Your task to perform on an android device: open app "Instagram" (install if not already installed) Image 0: 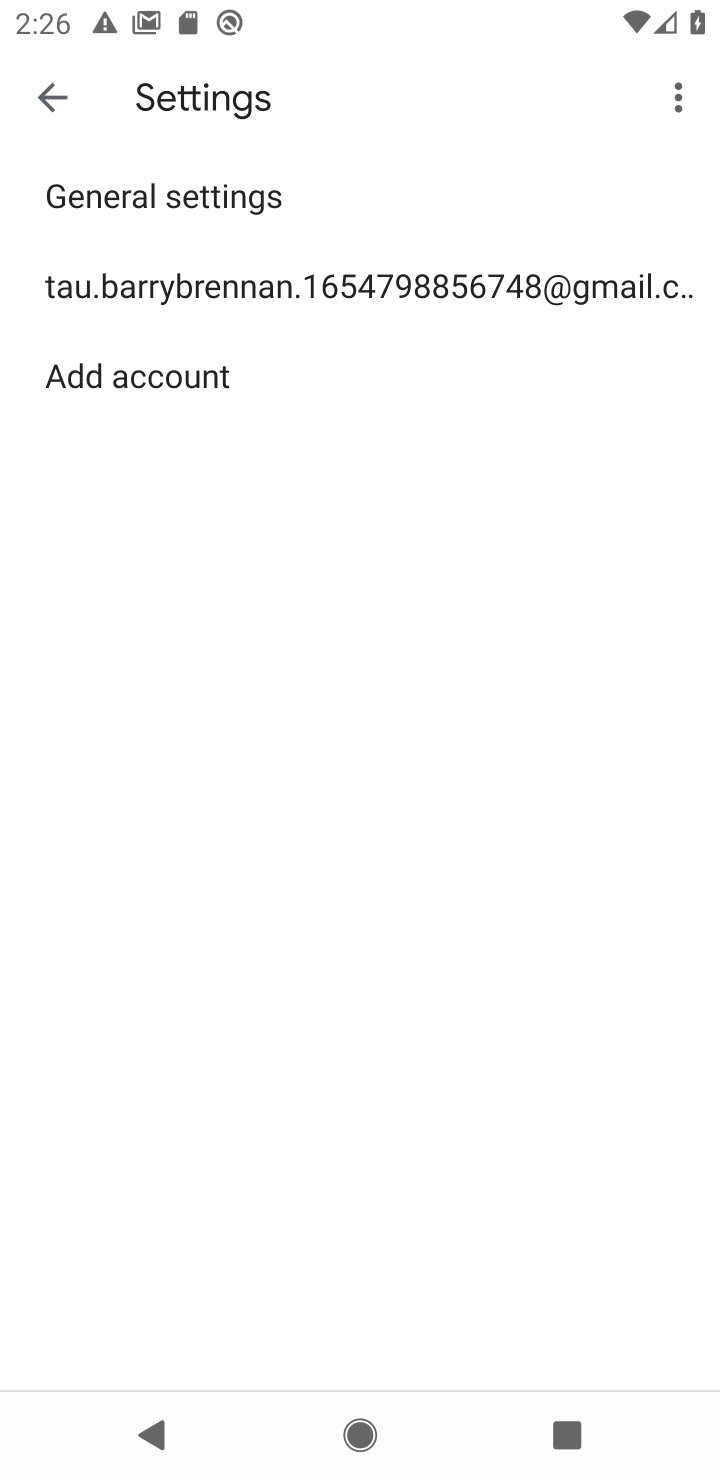
Step 0: press home button
Your task to perform on an android device: open app "Instagram" (install if not already installed) Image 1: 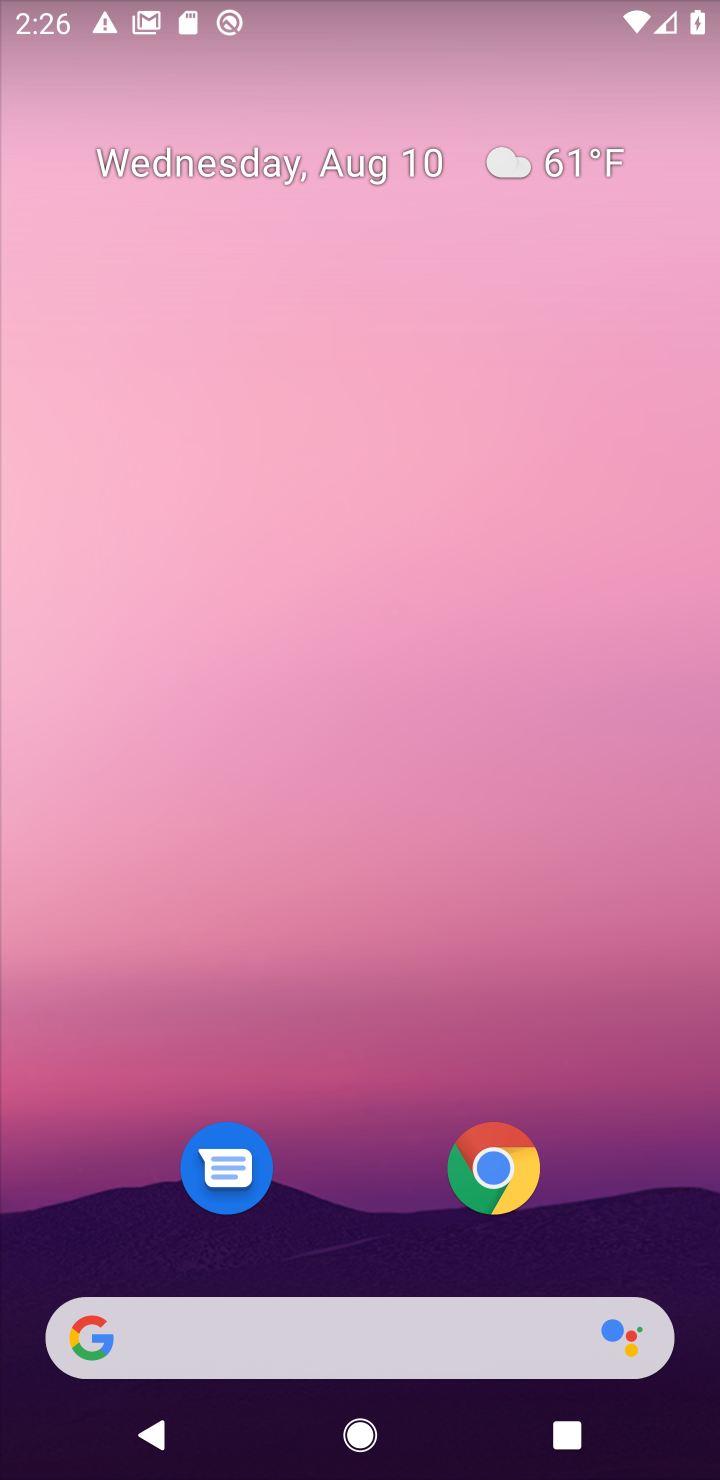
Step 1: drag from (251, 1322) to (336, 151)
Your task to perform on an android device: open app "Instagram" (install if not already installed) Image 2: 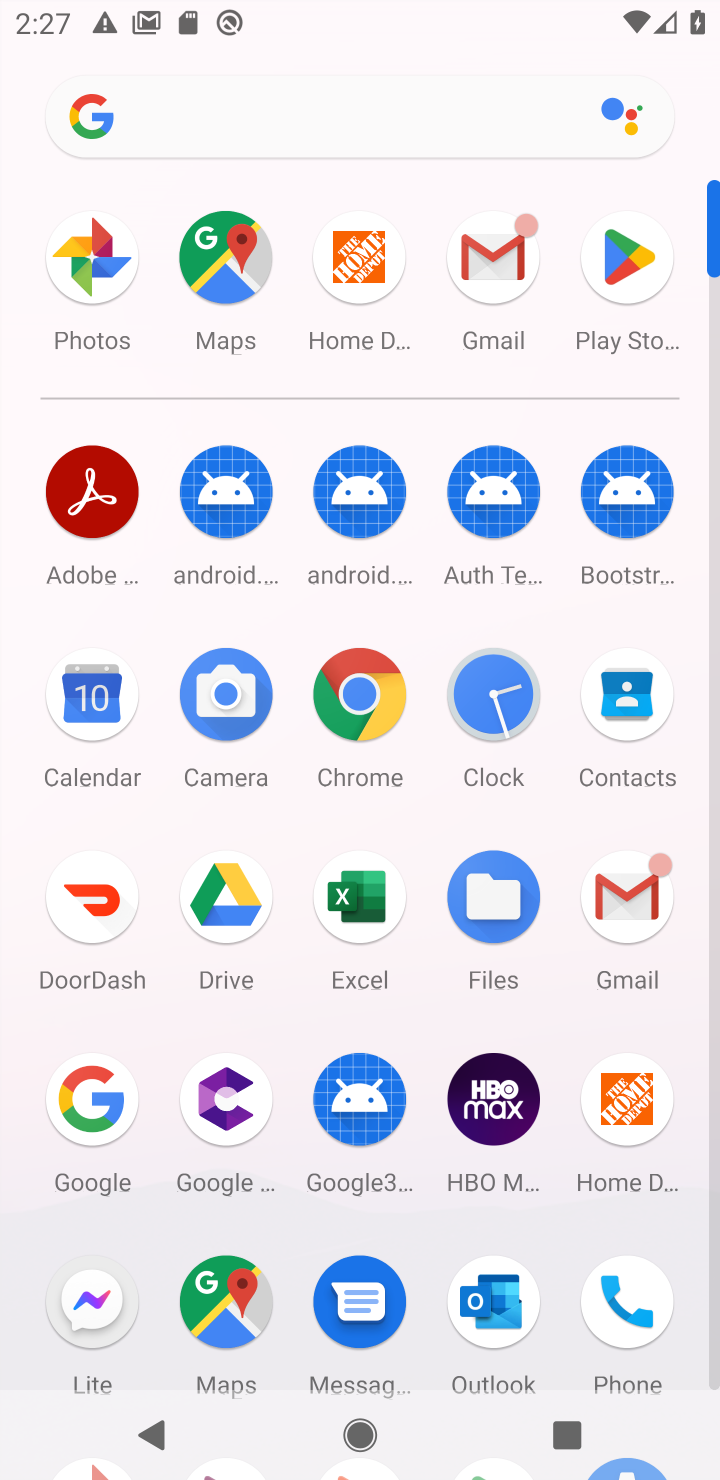
Step 2: click (620, 264)
Your task to perform on an android device: open app "Instagram" (install if not already installed) Image 3: 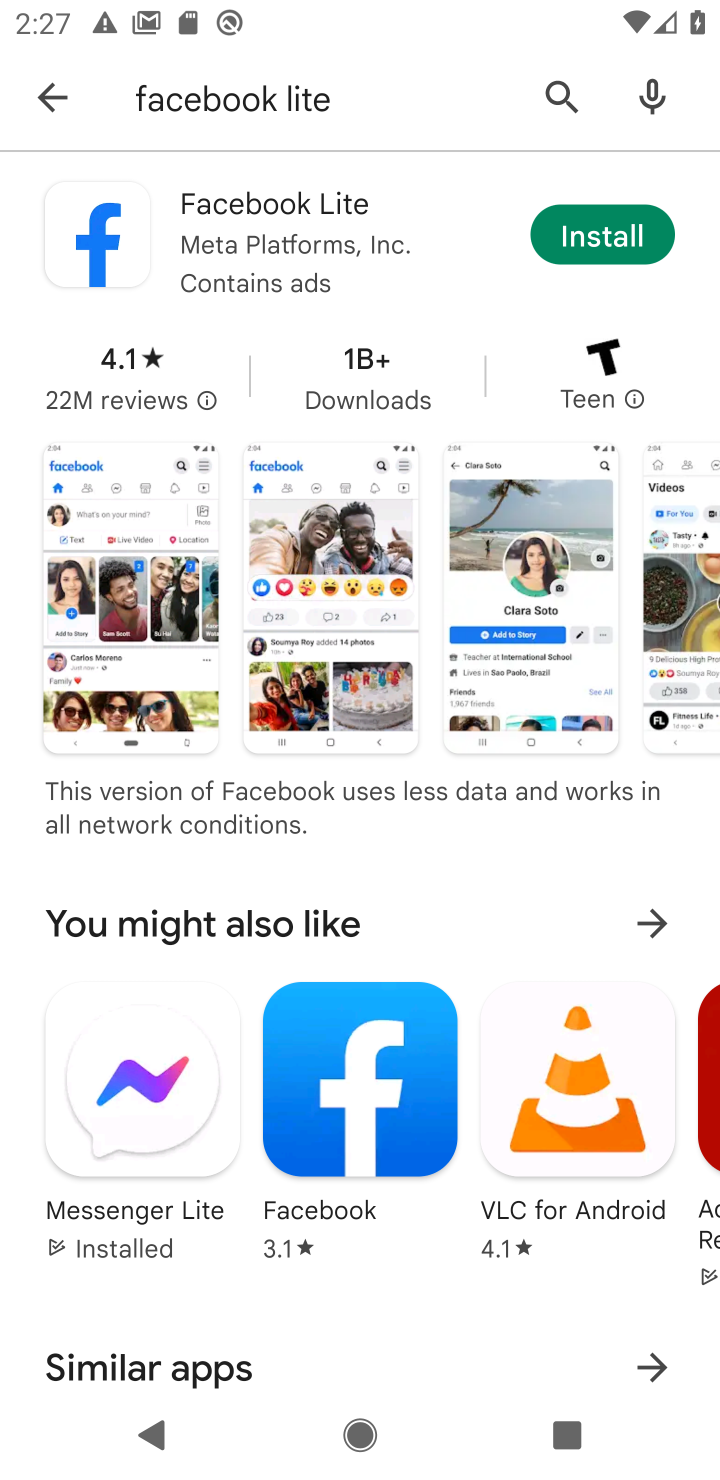
Step 3: click (558, 98)
Your task to perform on an android device: open app "Instagram" (install if not already installed) Image 4: 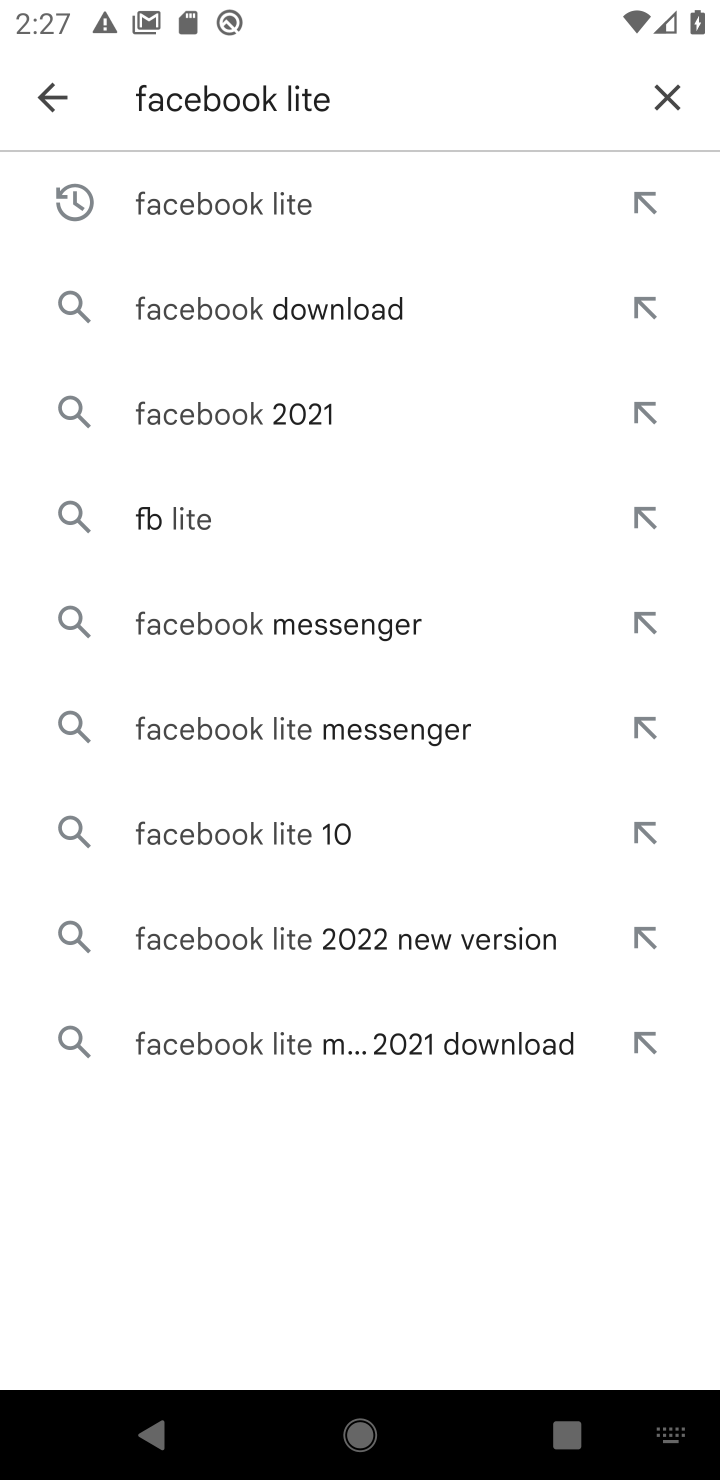
Step 4: press back button
Your task to perform on an android device: open app "Instagram" (install if not already installed) Image 5: 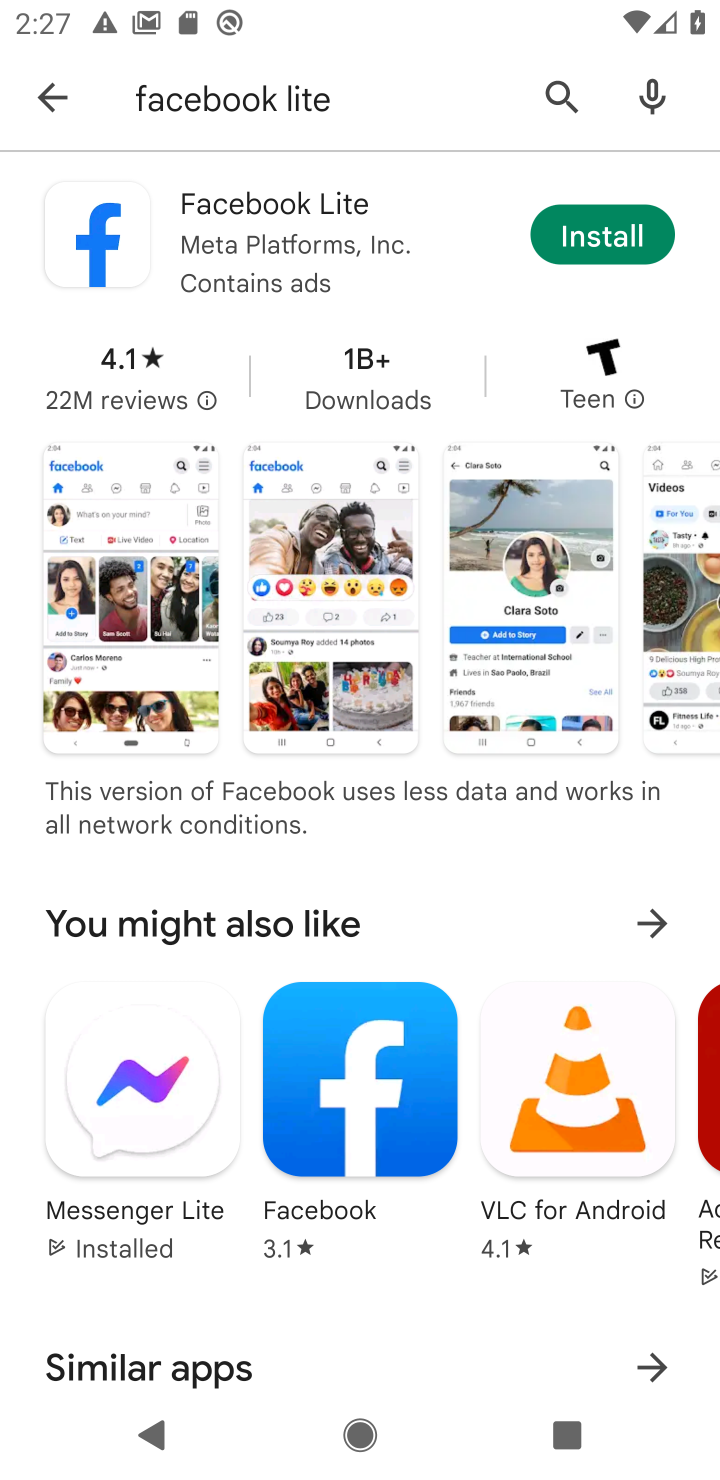
Step 5: press back button
Your task to perform on an android device: open app "Instagram" (install if not already installed) Image 6: 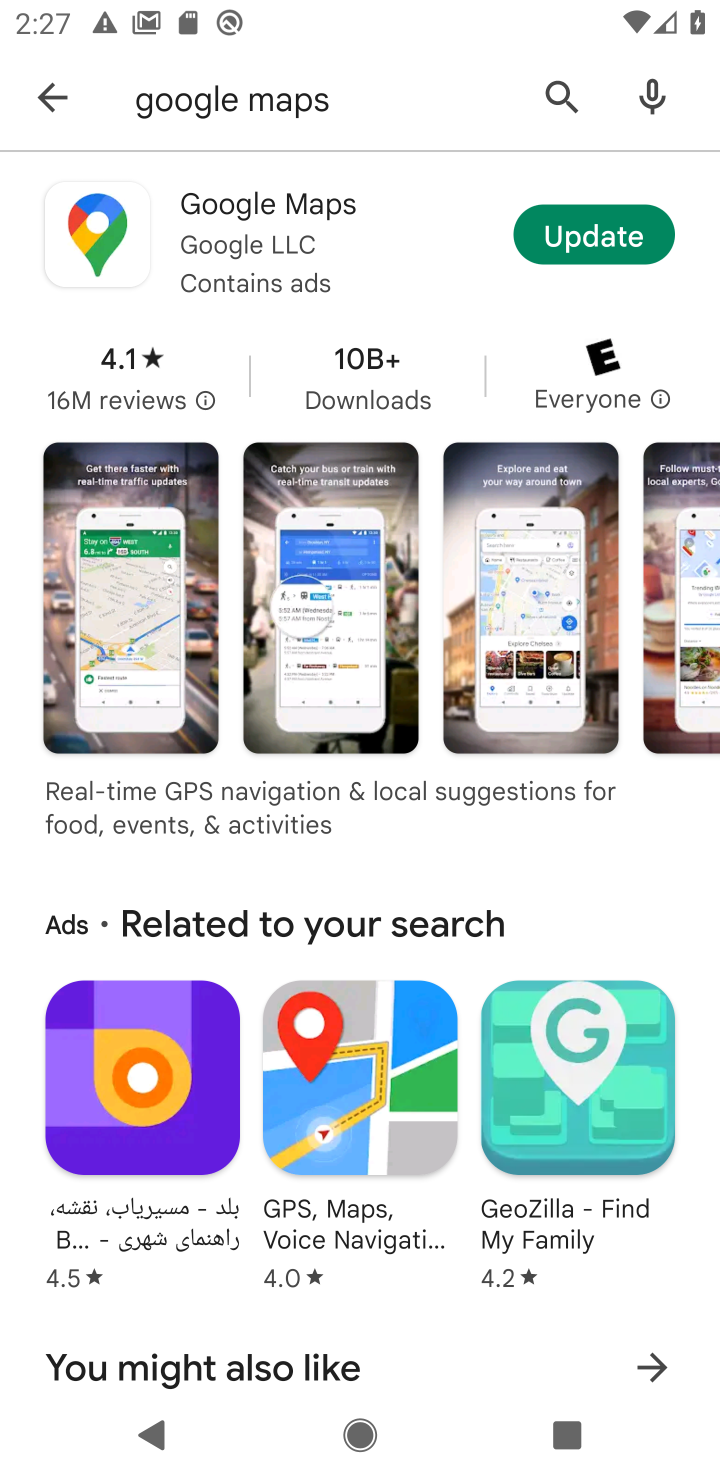
Step 6: press back button
Your task to perform on an android device: open app "Instagram" (install if not already installed) Image 7: 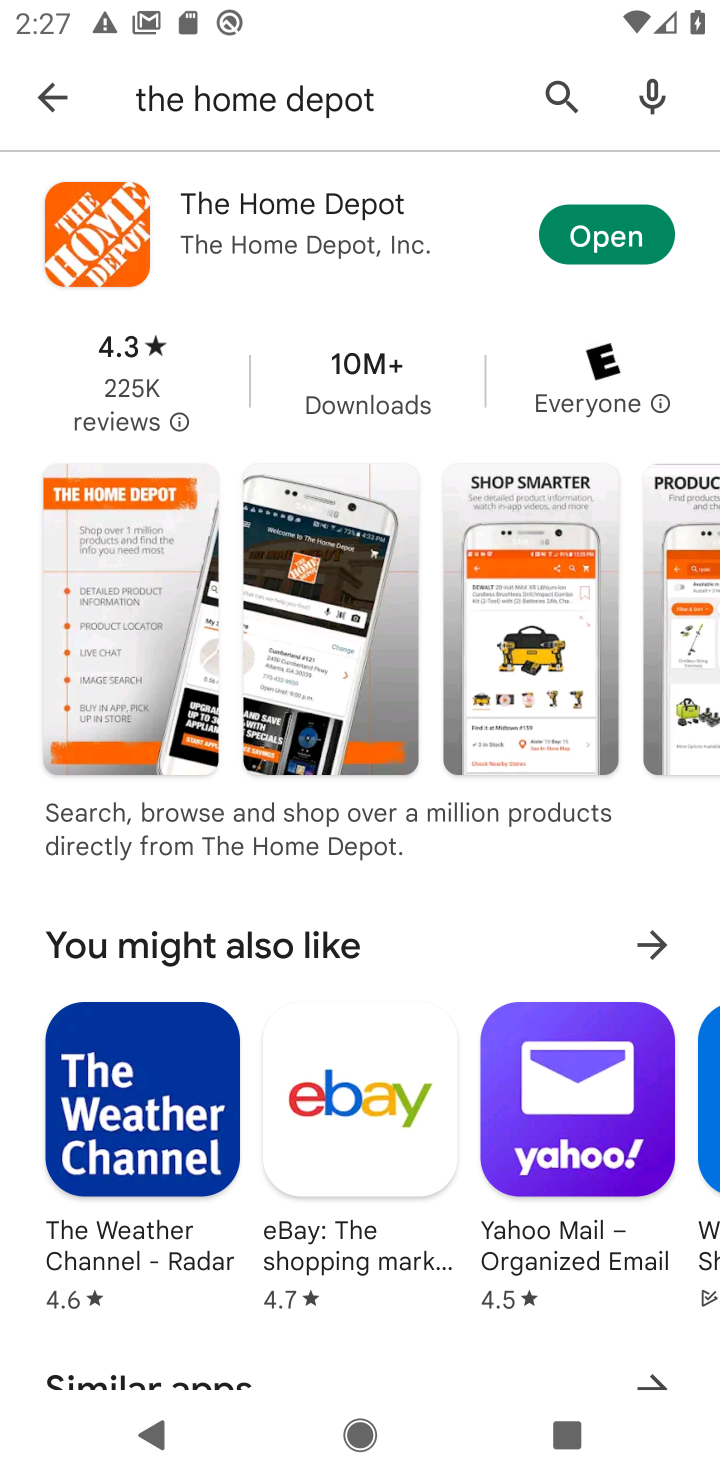
Step 7: press back button
Your task to perform on an android device: open app "Instagram" (install if not already installed) Image 8: 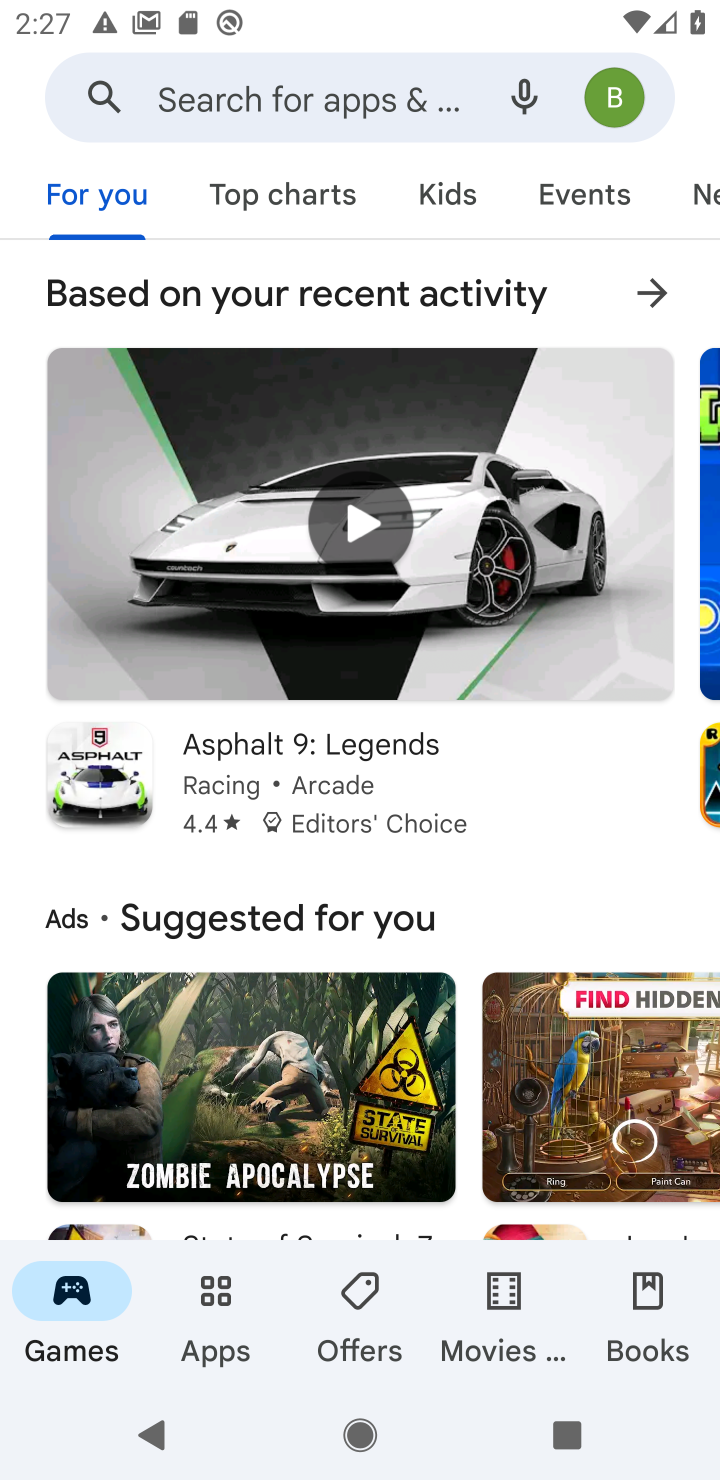
Step 8: click (384, 88)
Your task to perform on an android device: open app "Instagram" (install if not already installed) Image 9: 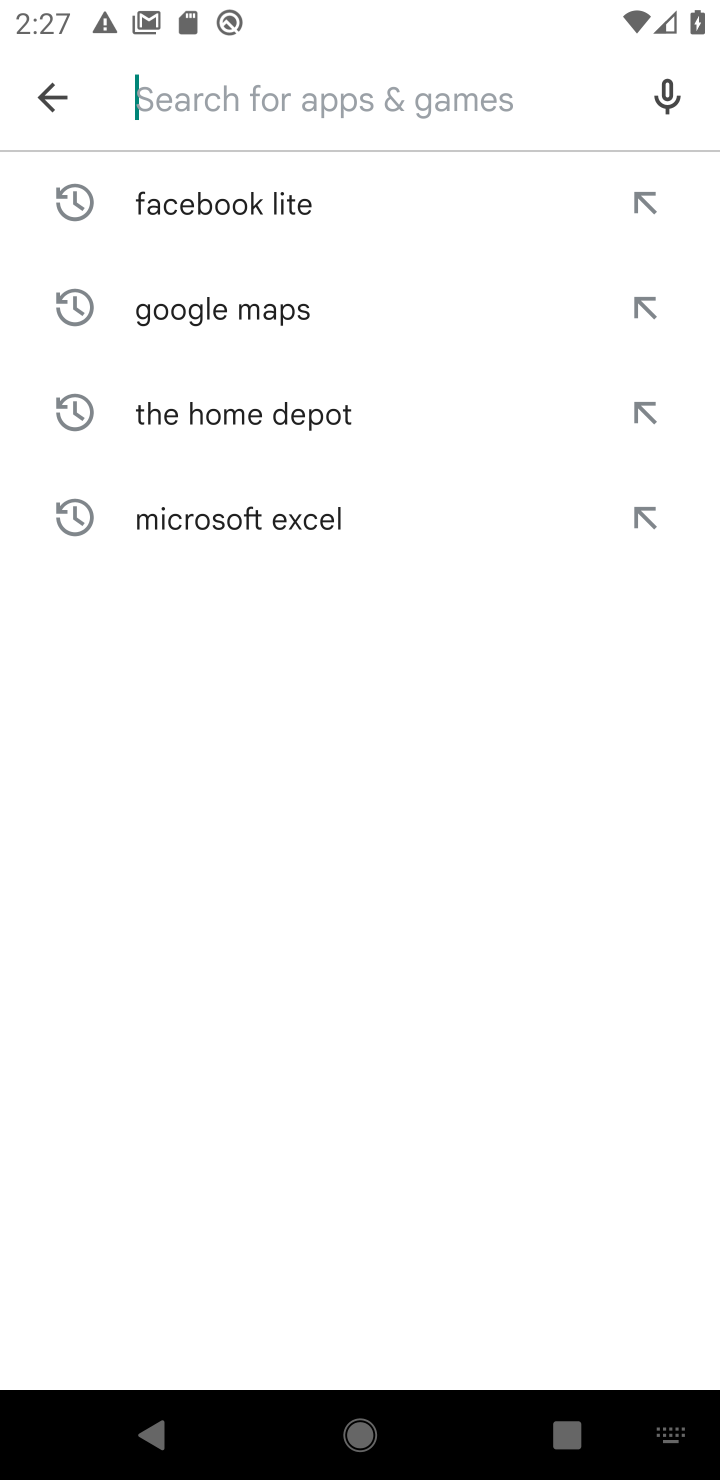
Step 9: type "Instagram"
Your task to perform on an android device: open app "Instagram" (install if not already installed) Image 10: 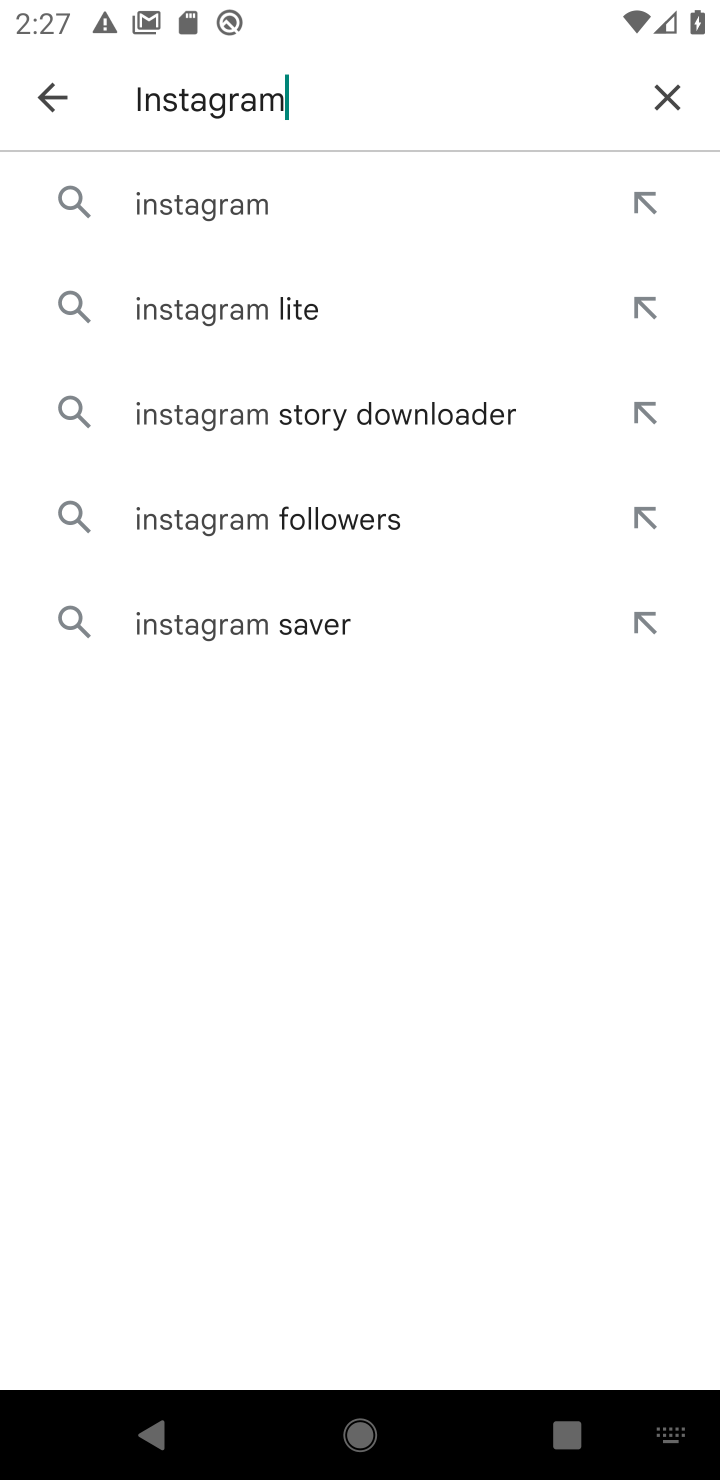
Step 10: click (233, 210)
Your task to perform on an android device: open app "Instagram" (install if not already installed) Image 11: 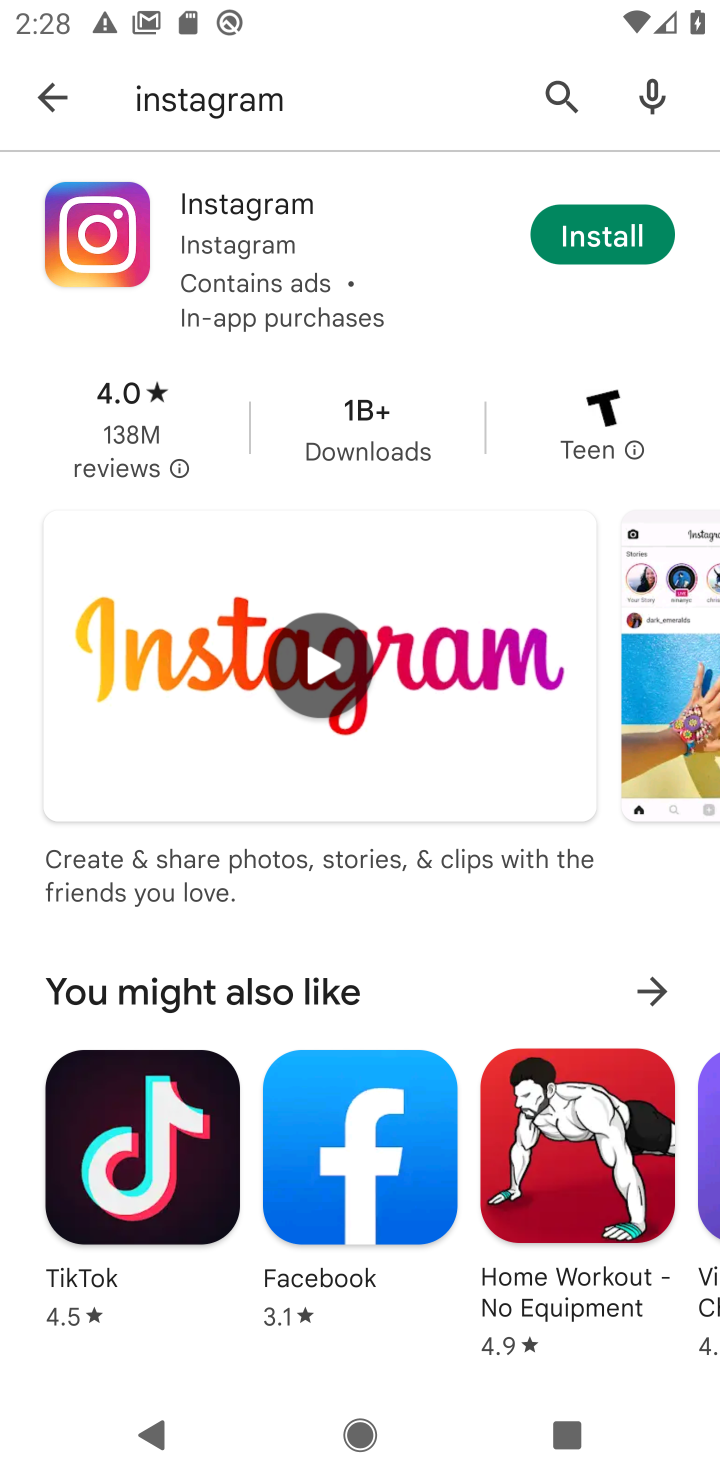
Step 11: click (599, 246)
Your task to perform on an android device: open app "Instagram" (install if not already installed) Image 12: 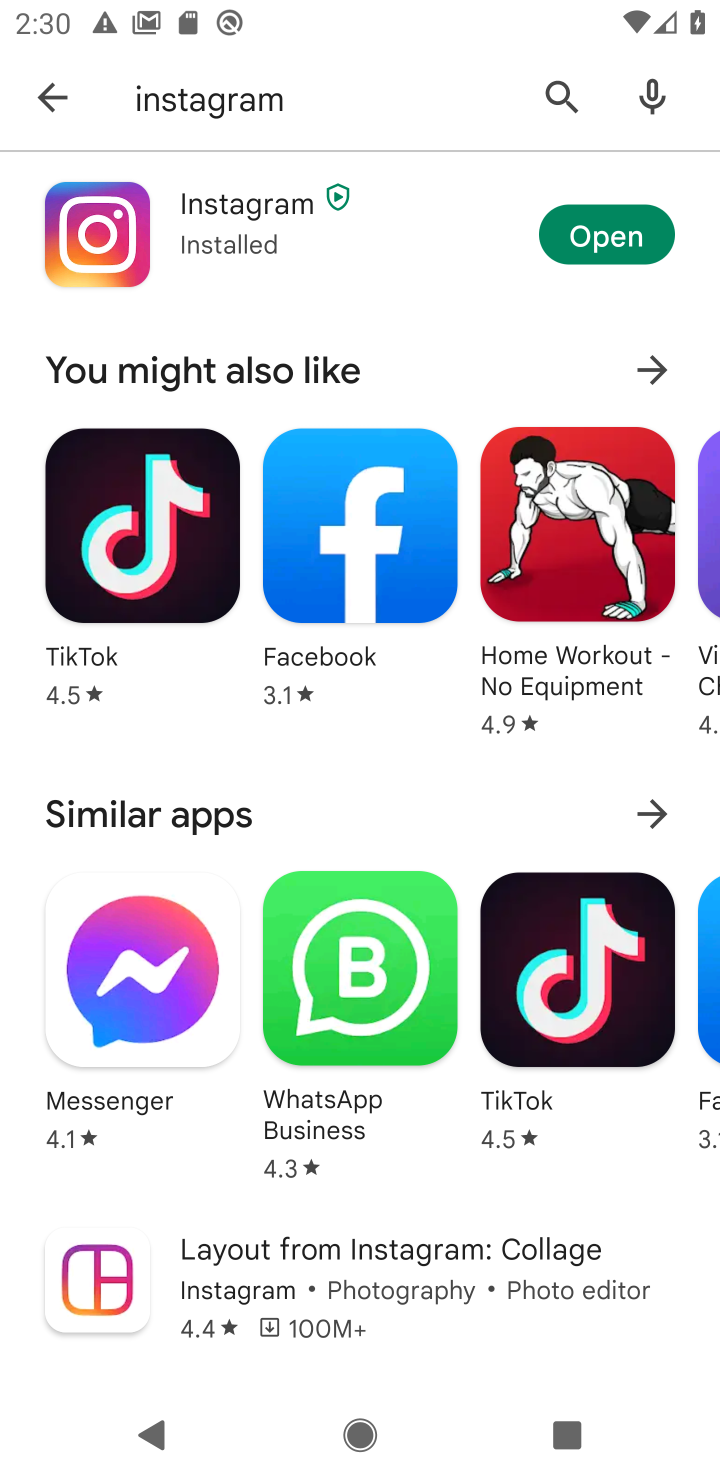
Step 12: click (637, 245)
Your task to perform on an android device: open app "Instagram" (install if not already installed) Image 13: 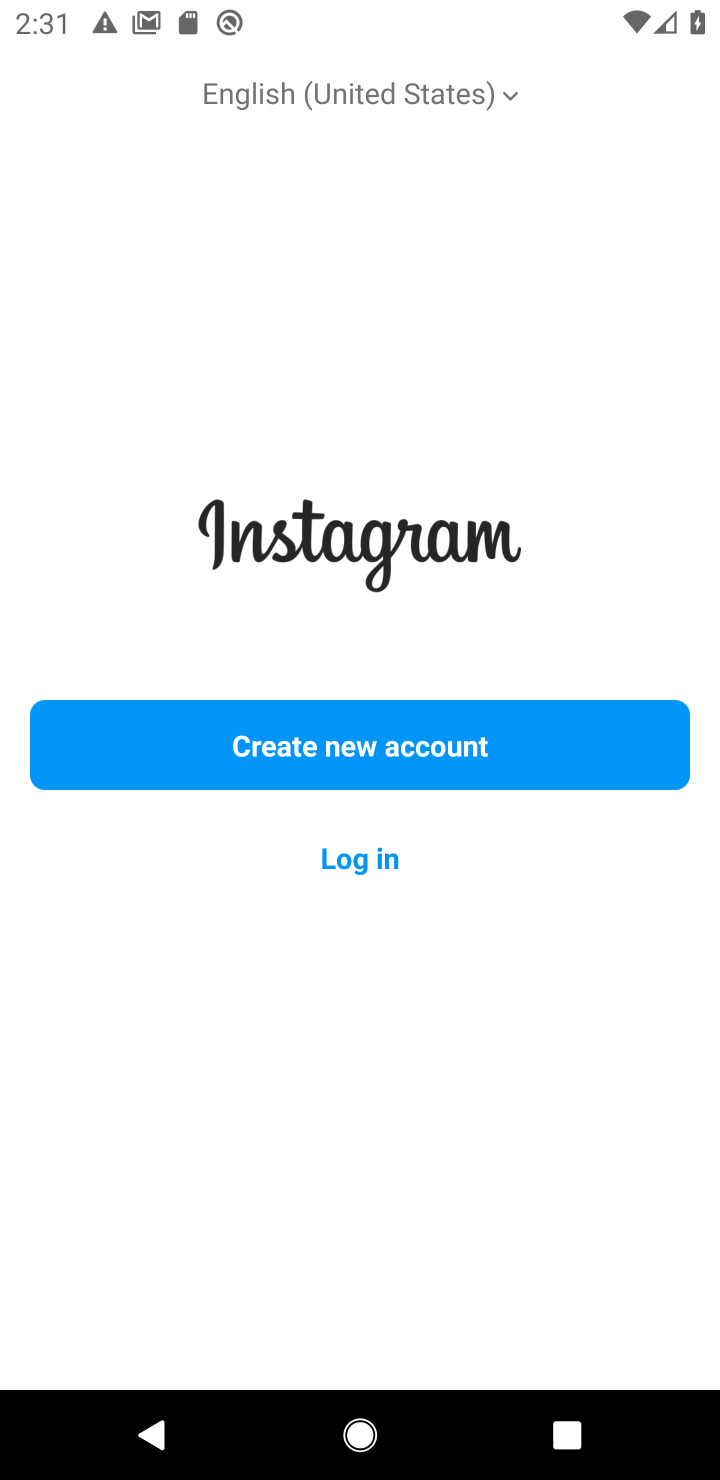
Step 13: task complete